Your task to perform on an android device: turn pop-ups off in chrome Image 0: 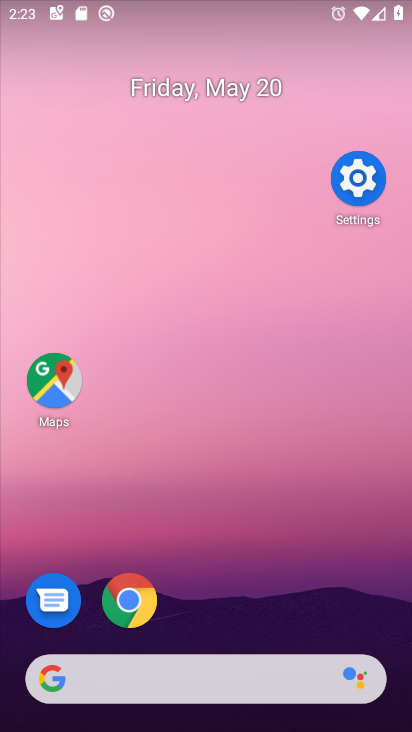
Step 0: click (131, 599)
Your task to perform on an android device: turn pop-ups off in chrome Image 1: 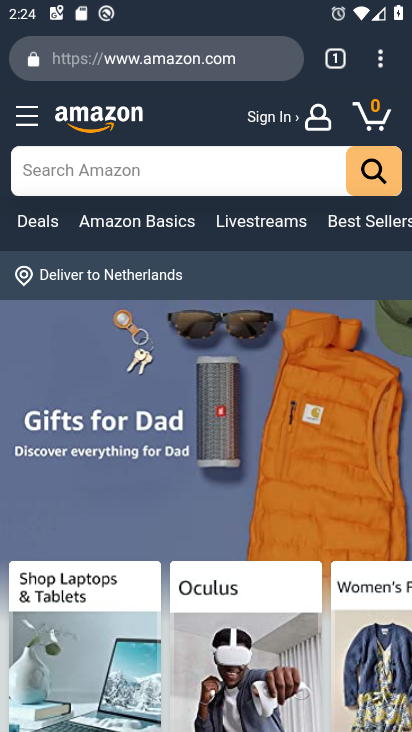
Step 1: click (382, 66)
Your task to perform on an android device: turn pop-ups off in chrome Image 2: 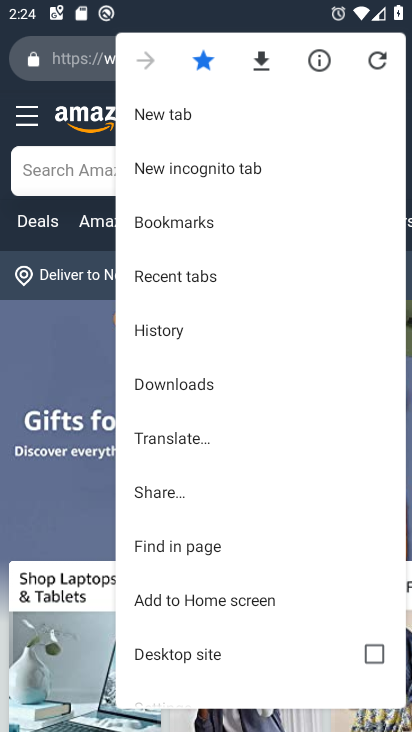
Step 2: drag from (213, 644) to (275, 173)
Your task to perform on an android device: turn pop-ups off in chrome Image 3: 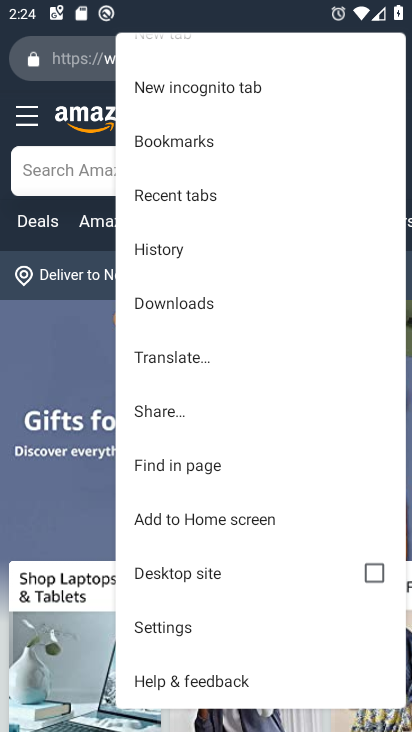
Step 3: click (166, 632)
Your task to perform on an android device: turn pop-ups off in chrome Image 4: 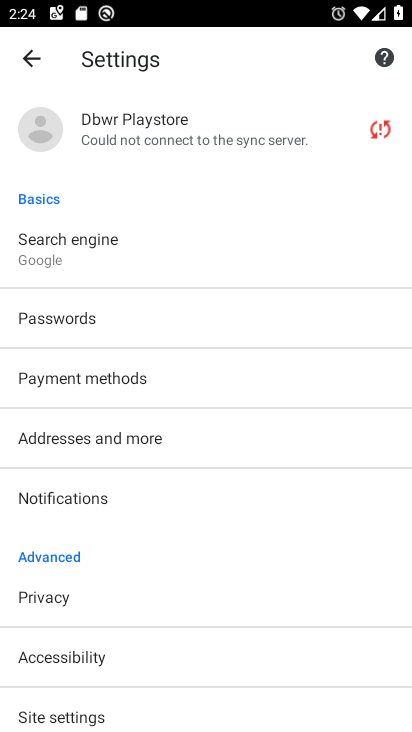
Step 4: drag from (72, 625) to (109, 273)
Your task to perform on an android device: turn pop-ups off in chrome Image 5: 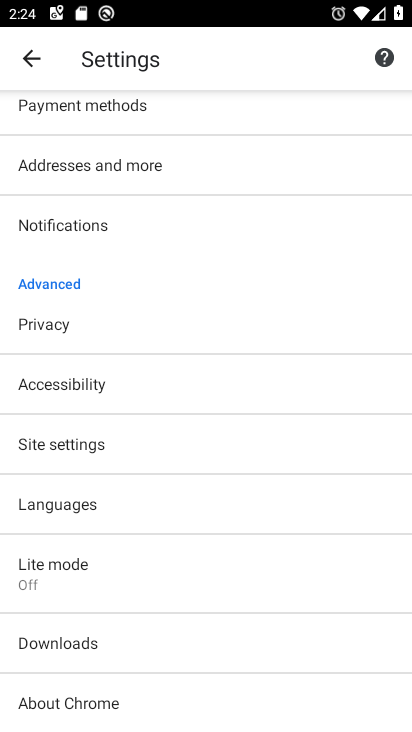
Step 5: click (74, 446)
Your task to perform on an android device: turn pop-ups off in chrome Image 6: 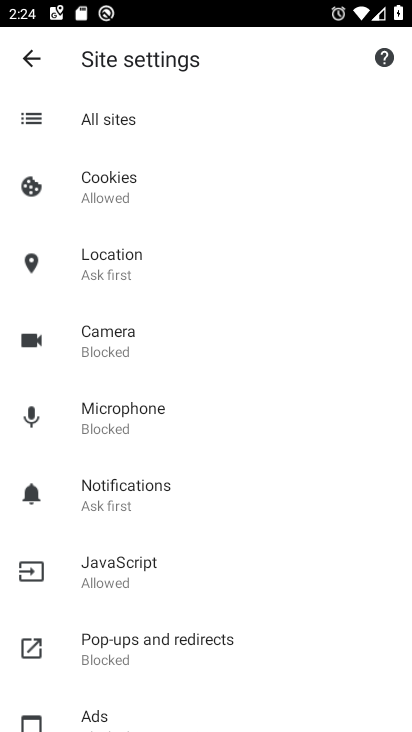
Step 6: click (126, 638)
Your task to perform on an android device: turn pop-ups off in chrome Image 7: 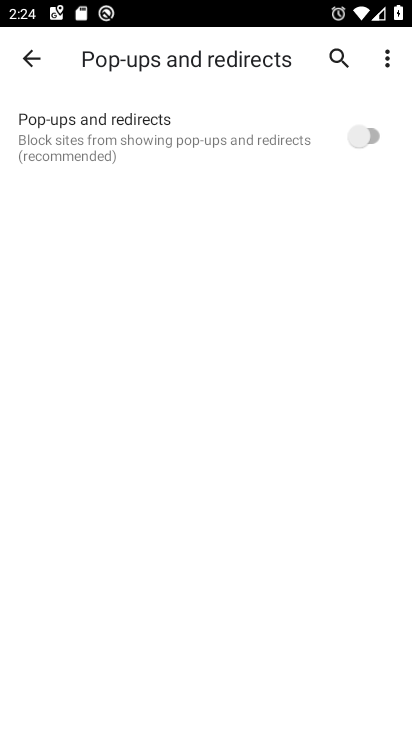
Step 7: click (125, 662)
Your task to perform on an android device: turn pop-ups off in chrome Image 8: 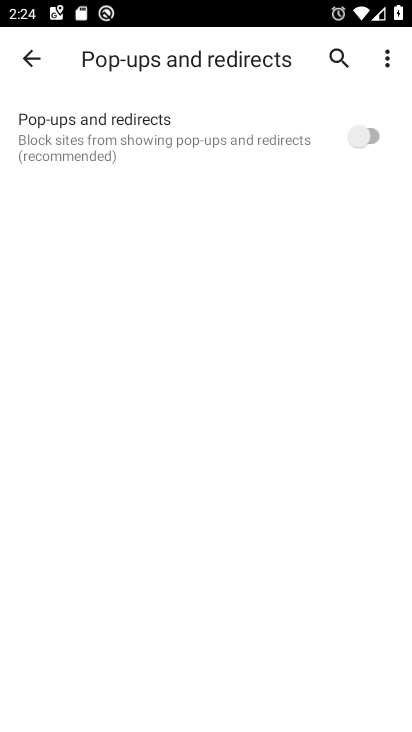
Step 8: task complete